Your task to perform on an android device: Go to internet settings Image 0: 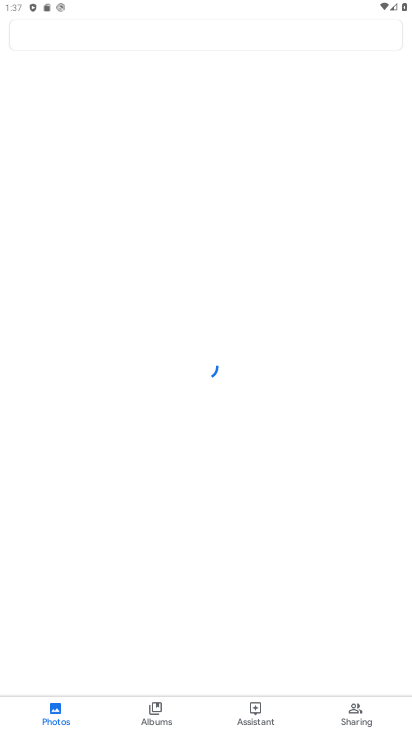
Step 0: press home button
Your task to perform on an android device: Go to internet settings Image 1: 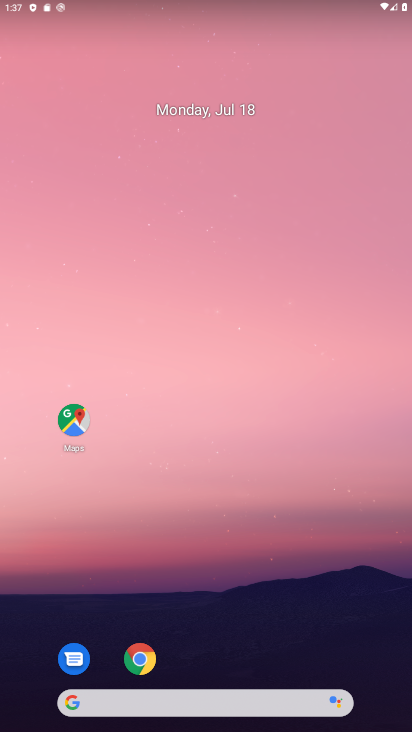
Step 1: drag from (334, 641) to (300, 152)
Your task to perform on an android device: Go to internet settings Image 2: 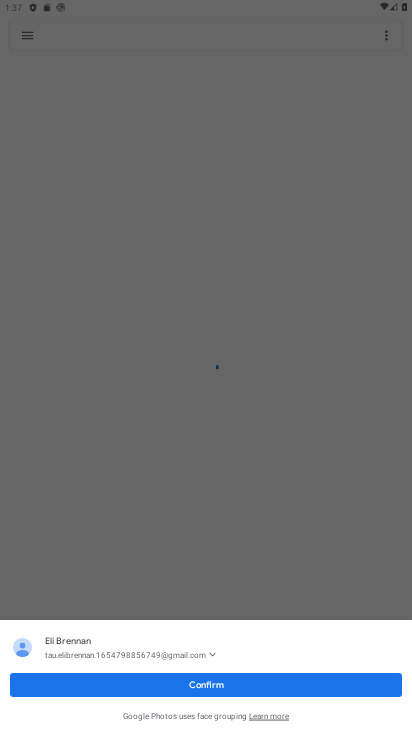
Step 2: press home button
Your task to perform on an android device: Go to internet settings Image 3: 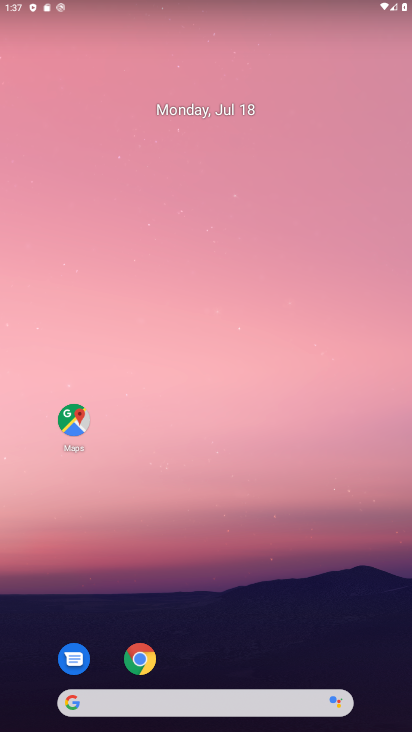
Step 3: drag from (316, 637) to (263, 178)
Your task to perform on an android device: Go to internet settings Image 4: 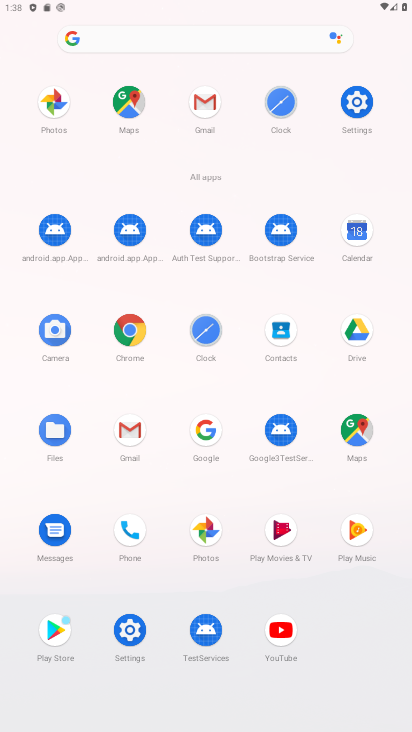
Step 4: click (352, 105)
Your task to perform on an android device: Go to internet settings Image 5: 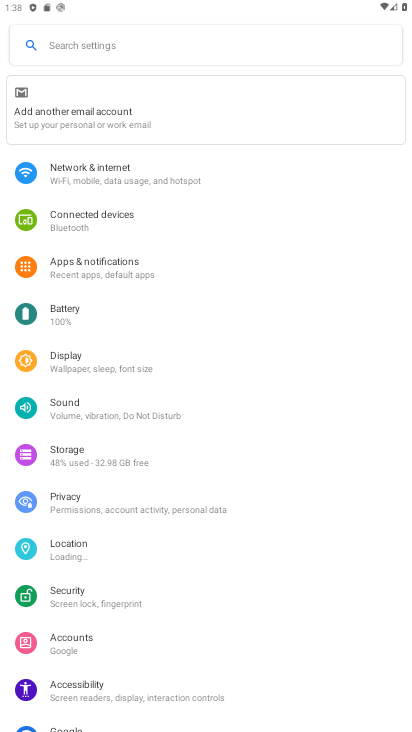
Step 5: click (326, 174)
Your task to perform on an android device: Go to internet settings Image 6: 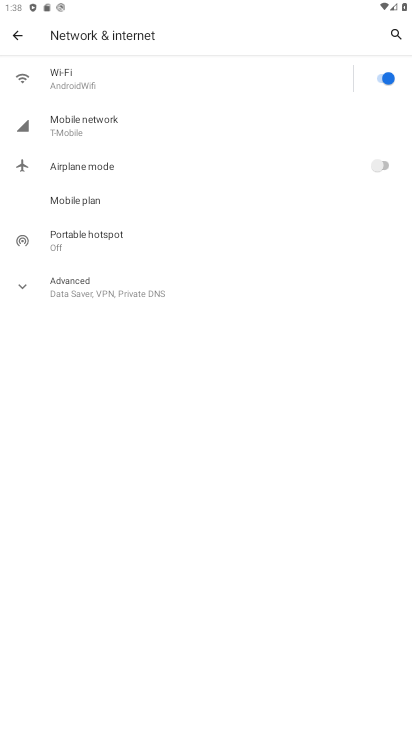
Step 6: task complete